Your task to perform on an android device: toggle translation in the chrome app Image 0: 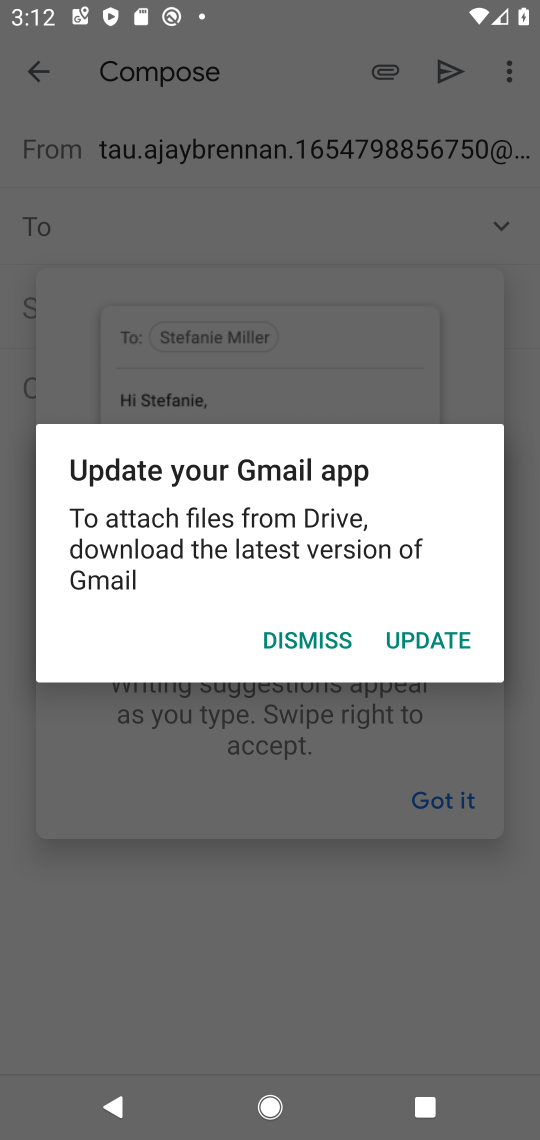
Step 0: click (315, 613)
Your task to perform on an android device: toggle translation in the chrome app Image 1: 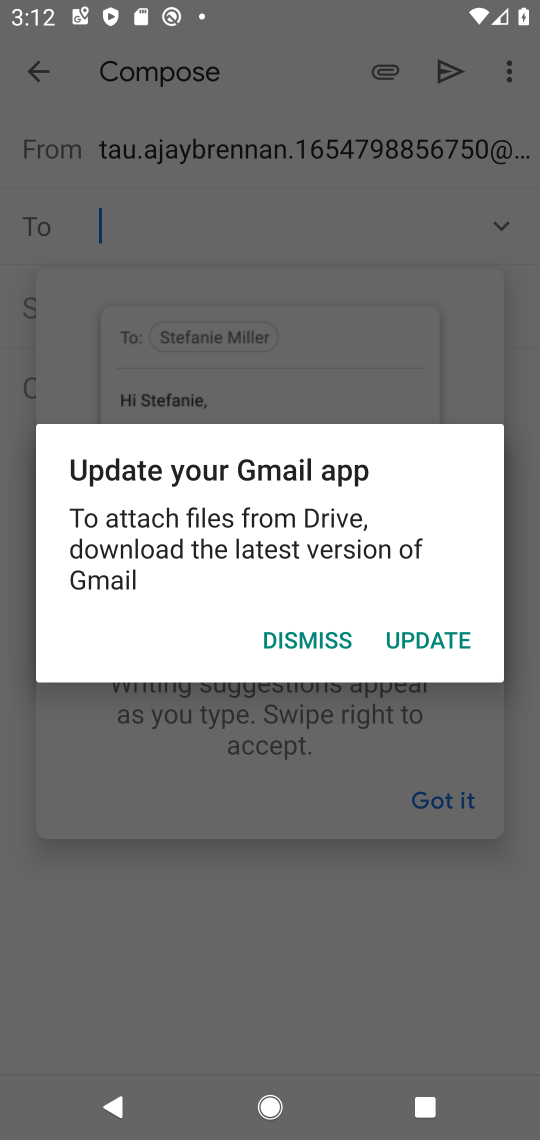
Step 1: click (306, 629)
Your task to perform on an android device: toggle translation in the chrome app Image 2: 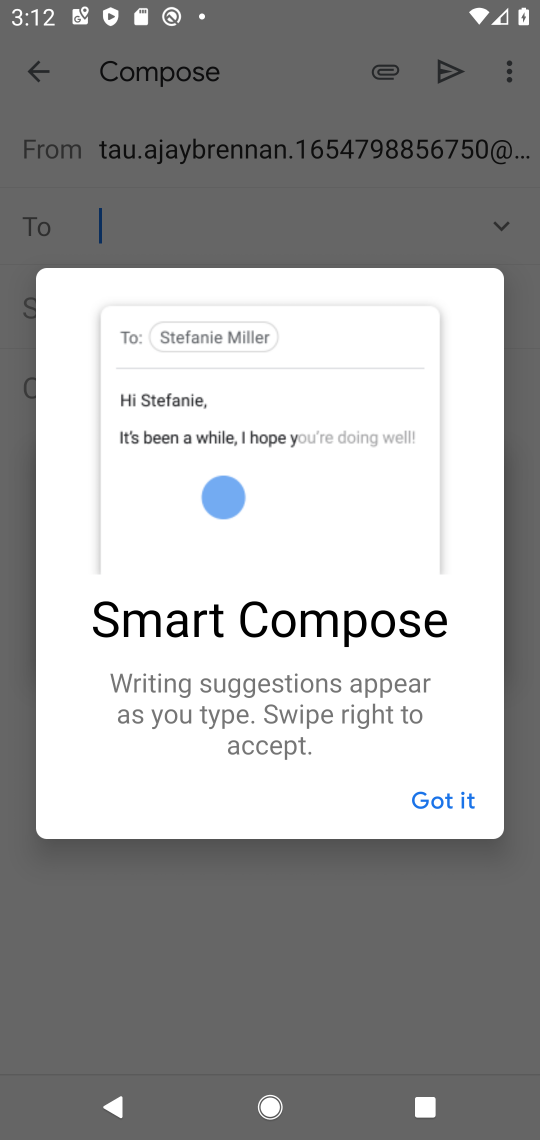
Step 2: click (485, 808)
Your task to perform on an android device: toggle translation in the chrome app Image 3: 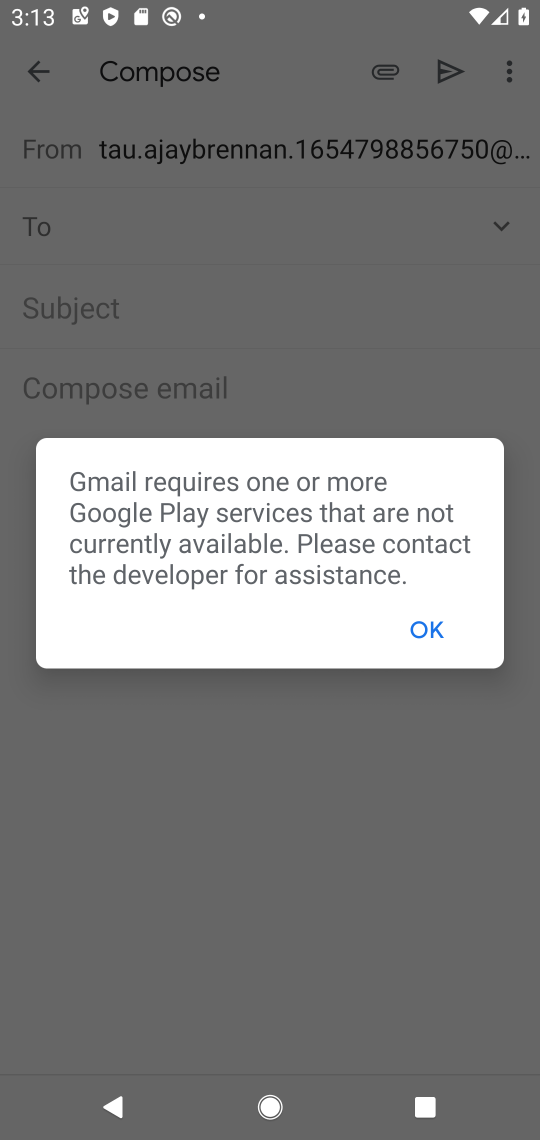
Step 3: press back button
Your task to perform on an android device: toggle translation in the chrome app Image 4: 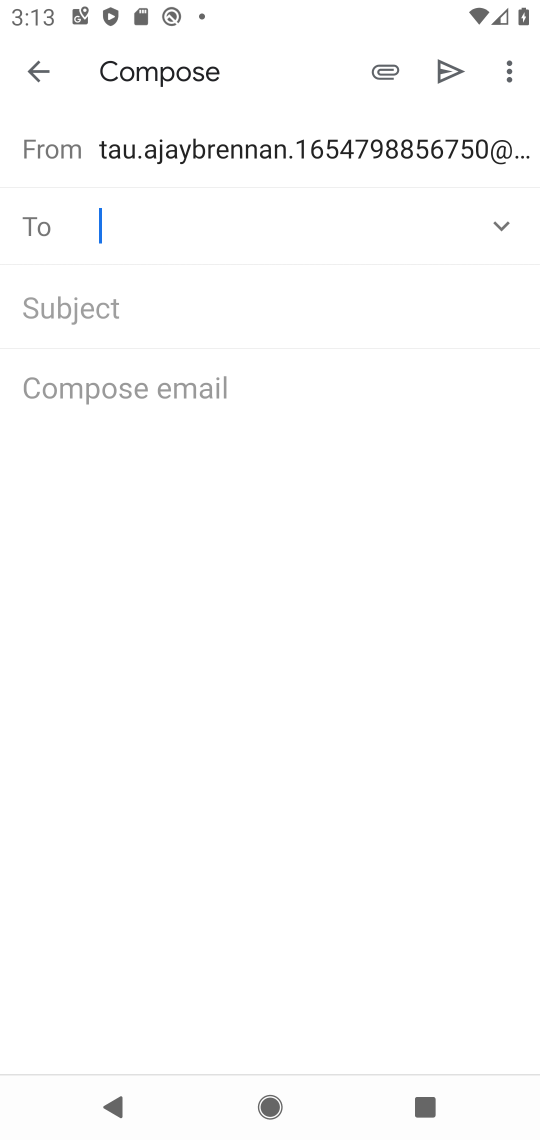
Step 4: press home button
Your task to perform on an android device: toggle translation in the chrome app Image 5: 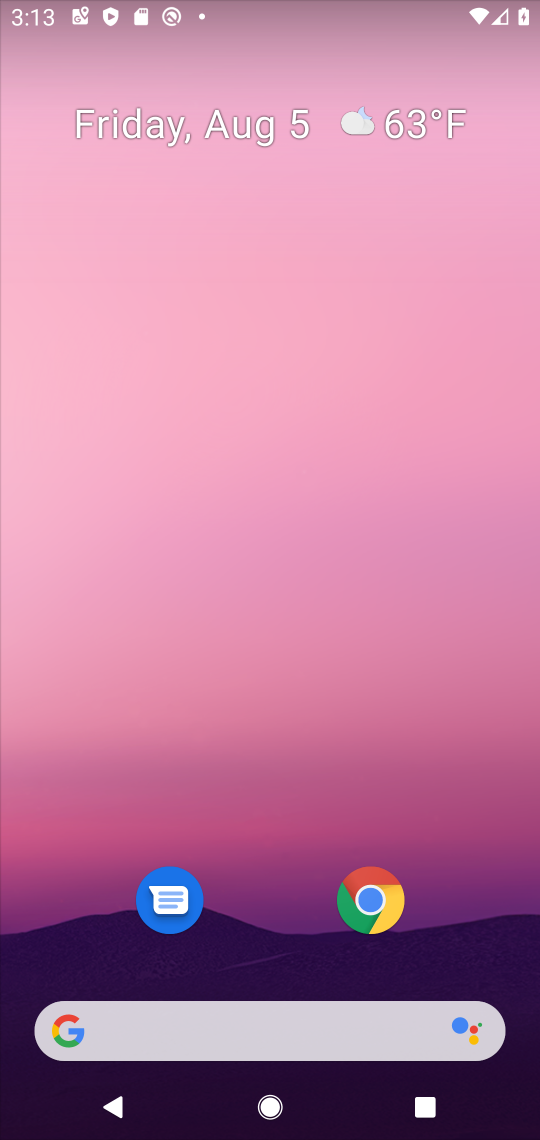
Step 5: click (341, 907)
Your task to perform on an android device: toggle translation in the chrome app Image 6: 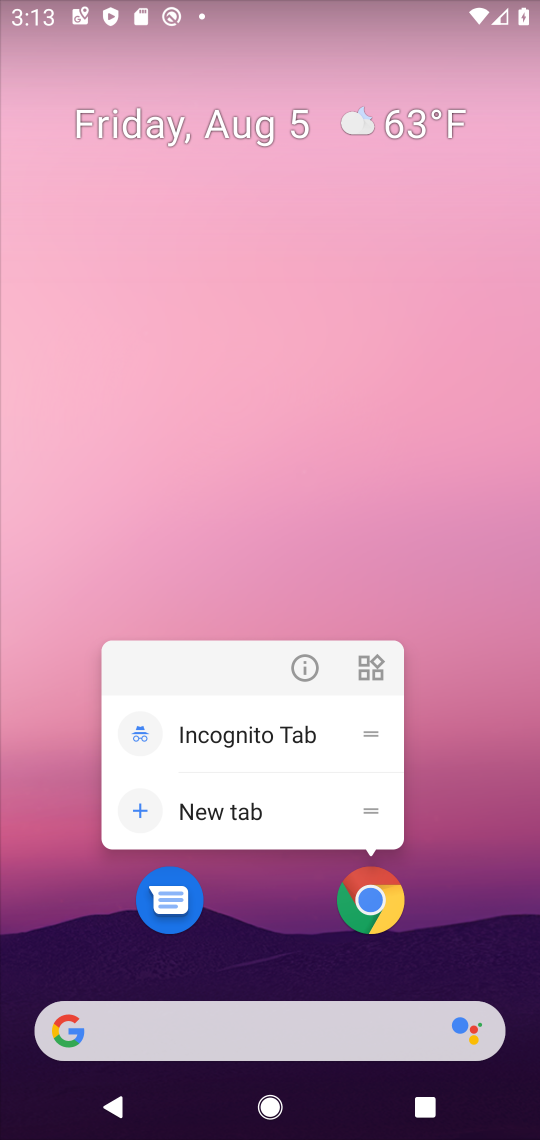
Step 6: click (377, 904)
Your task to perform on an android device: toggle translation in the chrome app Image 7: 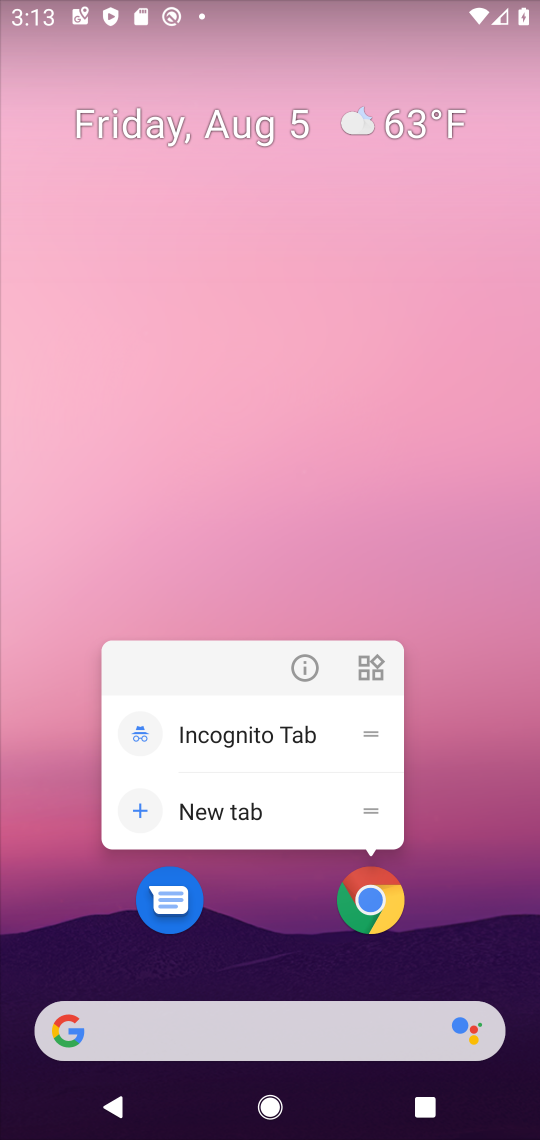
Step 7: click (383, 908)
Your task to perform on an android device: toggle translation in the chrome app Image 8: 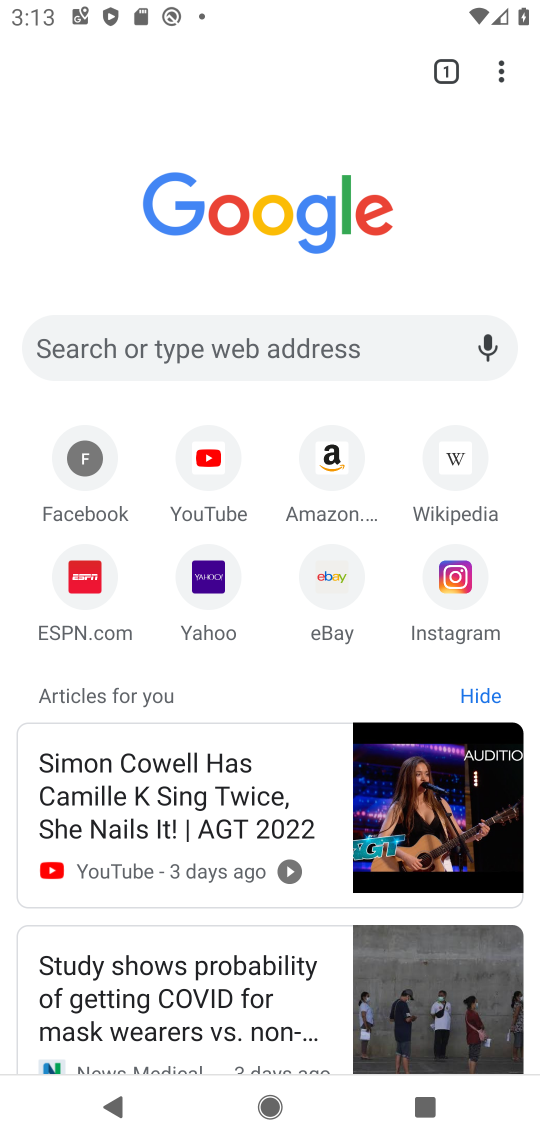
Step 8: drag from (503, 72) to (276, 599)
Your task to perform on an android device: toggle translation in the chrome app Image 9: 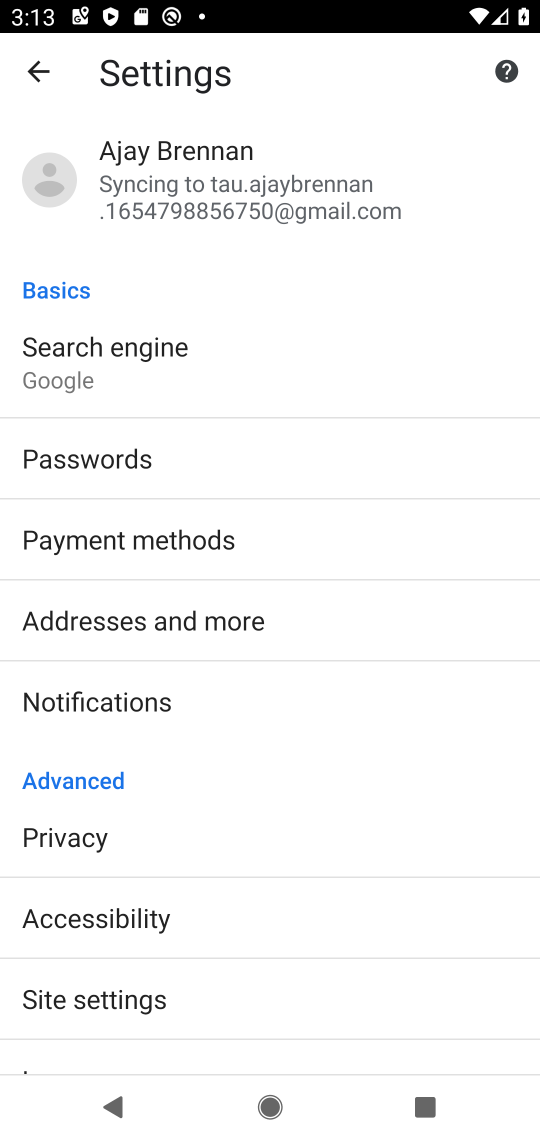
Step 9: drag from (139, 968) to (325, 199)
Your task to perform on an android device: toggle translation in the chrome app Image 10: 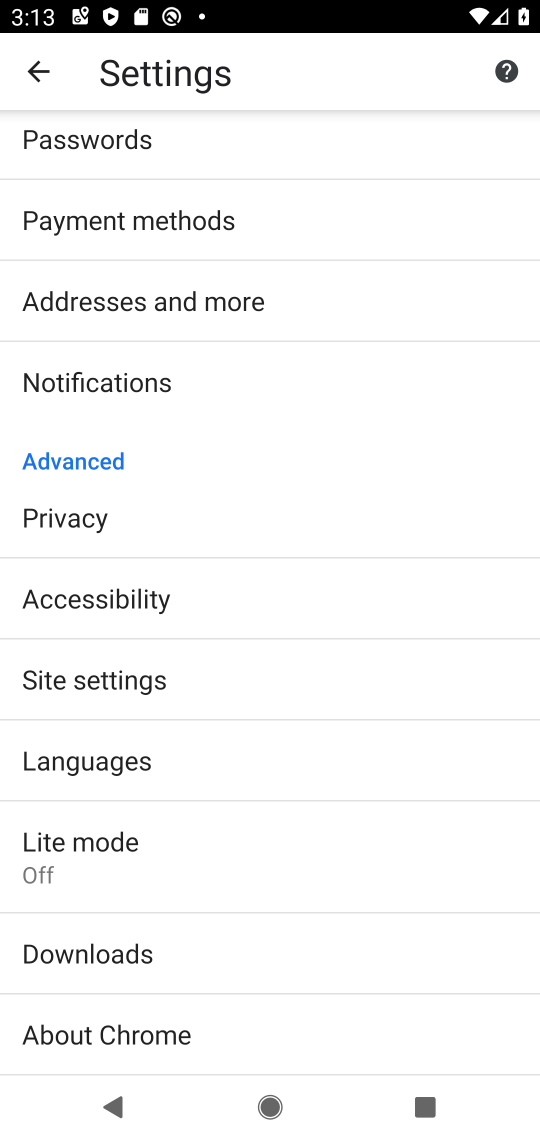
Step 10: click (60, 763)
Your task to perform on an android device: toggle translation in the chrome app Image 11: 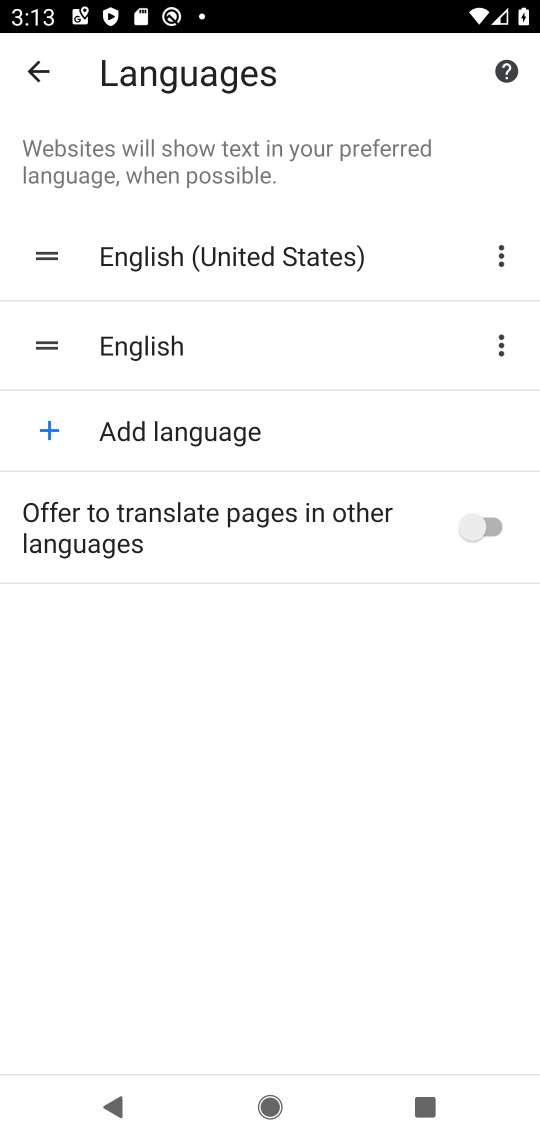
Step 11: click (480, 518)
Your task to perform on an android device: toggle translation in the chrome app Image 12: 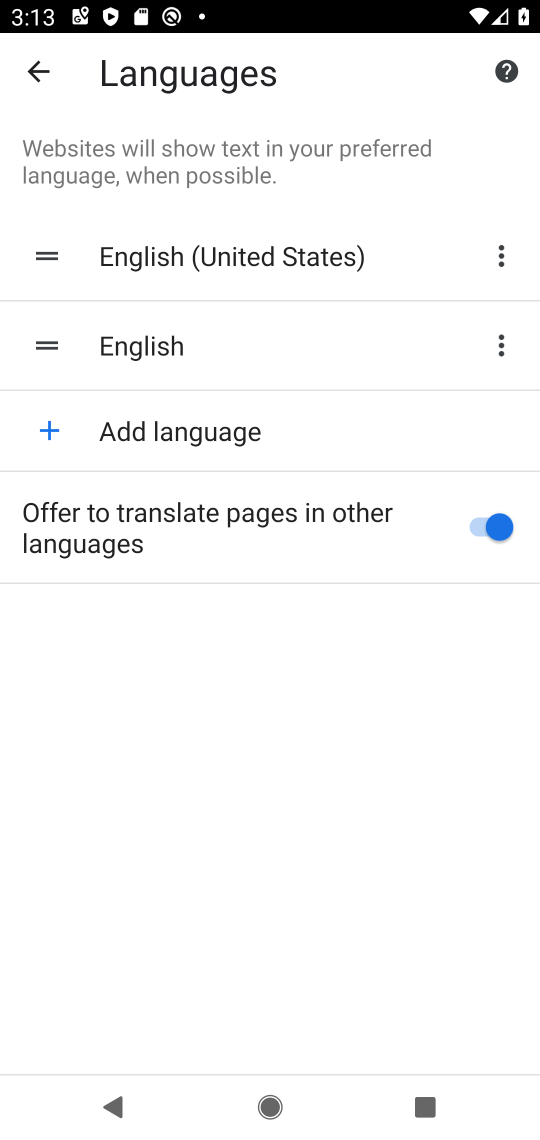
Step 12: task complete